Your task to perform on an android device: Open Yahoo.com Image 0: 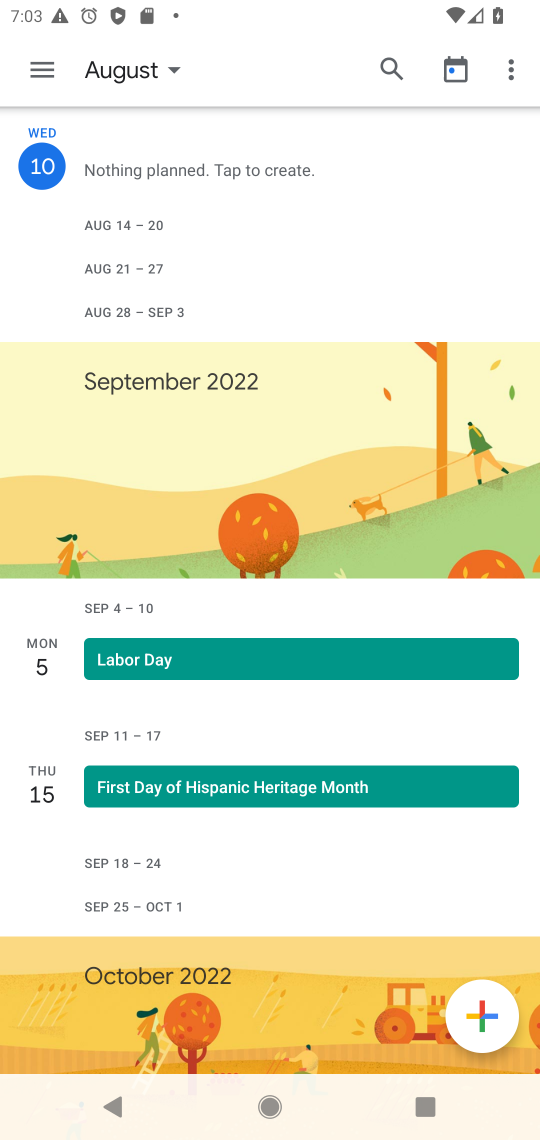
Step 0: press home button
Your task to perform on an android device: Open Yahoo.com Image 1: 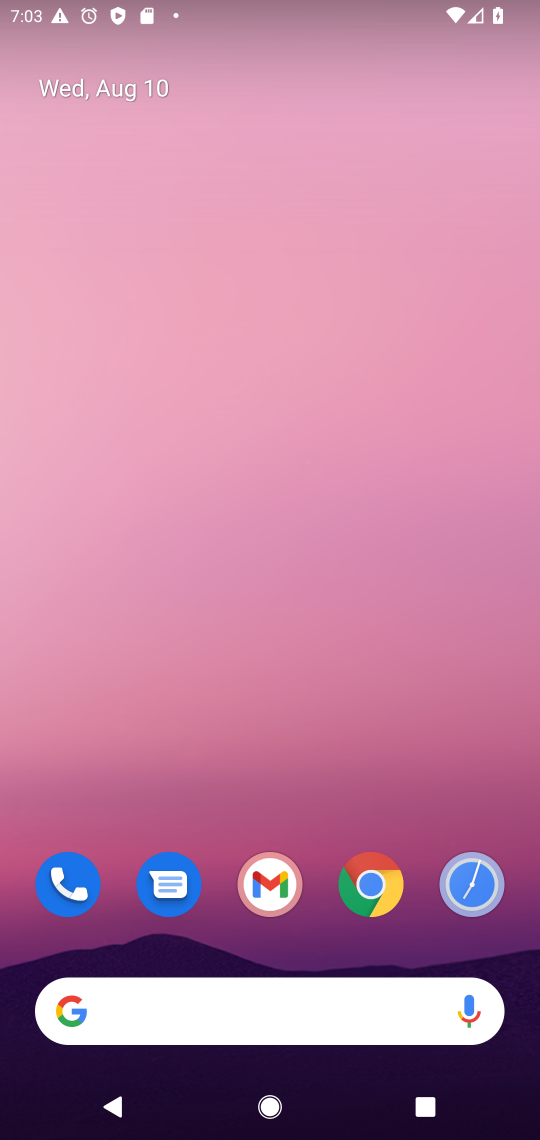
Step 1: click (216, 1001)
Your task to perform on an android device: Open Yahoo.com Image 2: 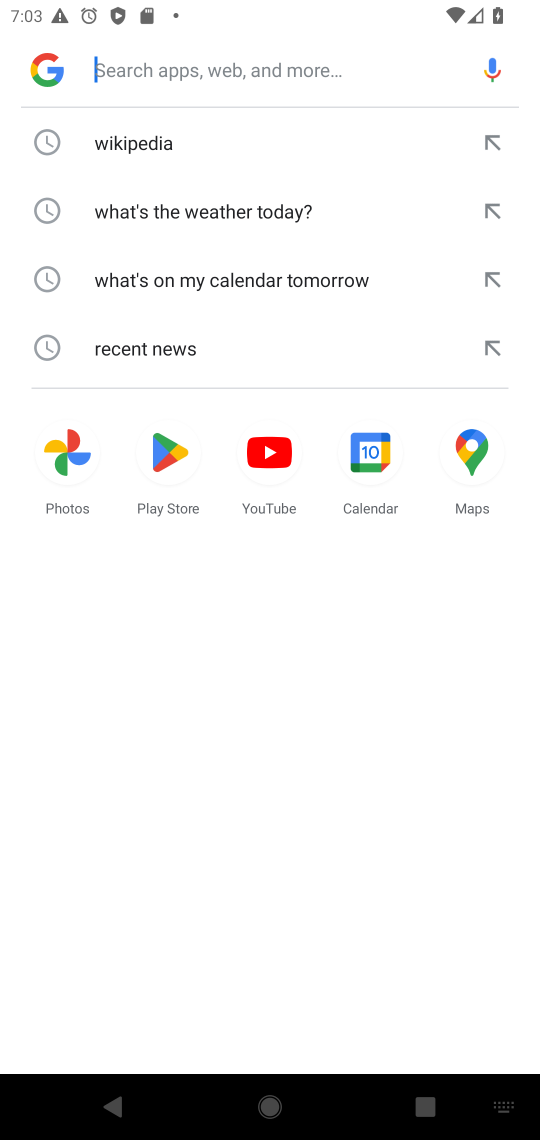
Step 2: type "Yahoo.com"
Your task to perform on an android device: Open Yahoo.com Image 3: 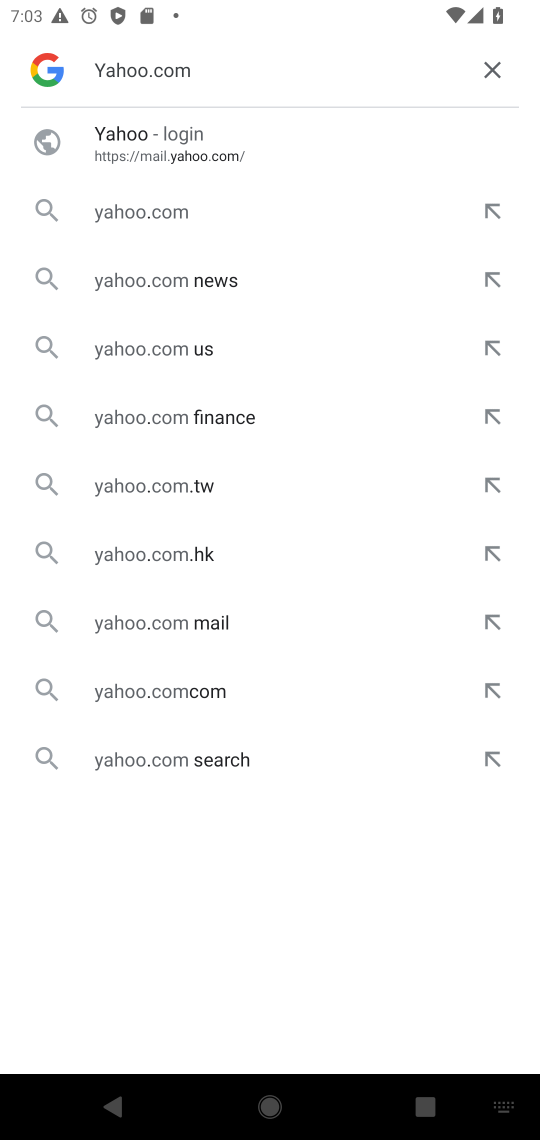
Step 3: click (151, 223)
Your task to perform on an android device: Open Yahoo.com Image 4: 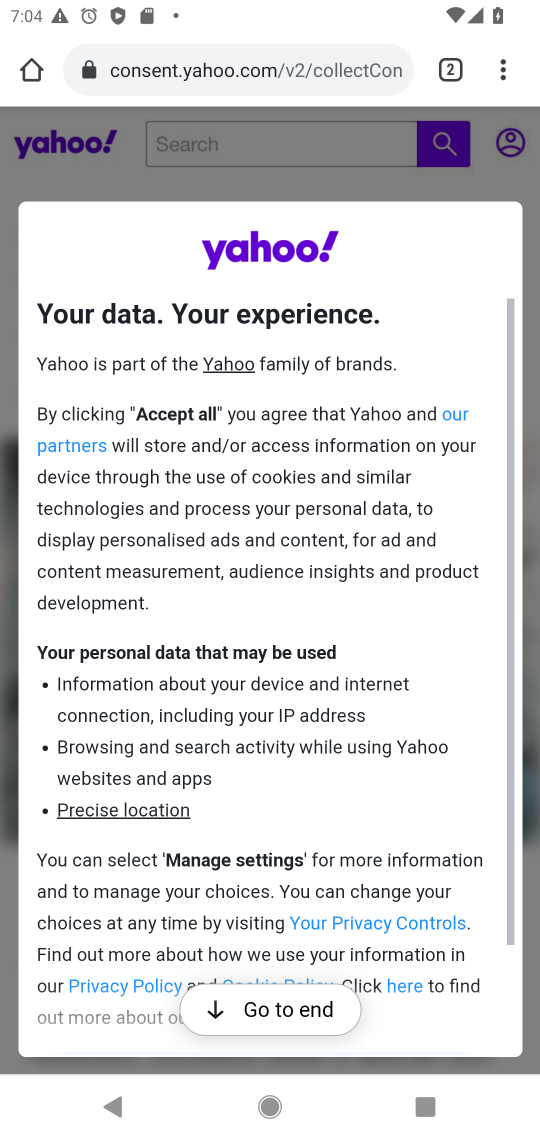
Step 4: task complete